Your task to perform on an android device: Go to Amazon Image 0: 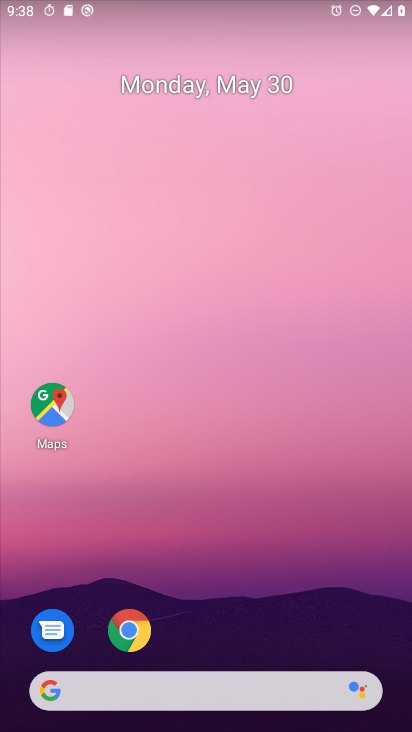
Step 0: drag from (358, 628) to (226, 29)
Your task to perform on an android device: Go to Amazon Image 1: 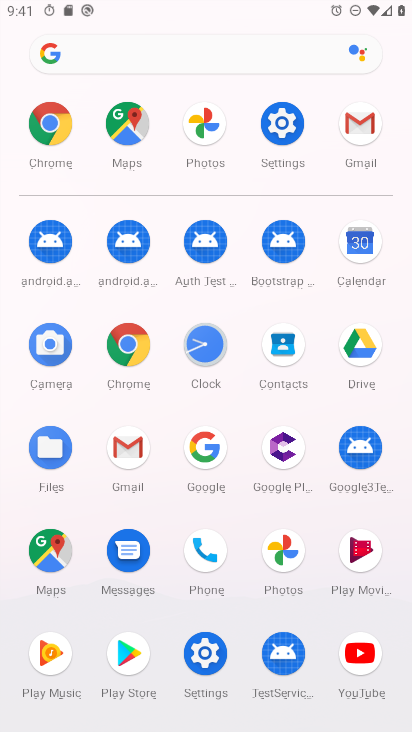
Step 1: click (213, 449)
Your task to perform on an android device: Go to Amazon Image 2: 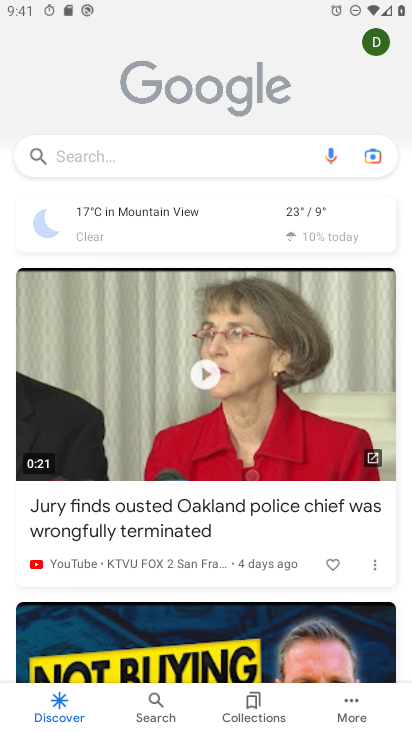
Step 2: click (152, 156)
Your task to perform on an android device: Go to Amazon Image 3: 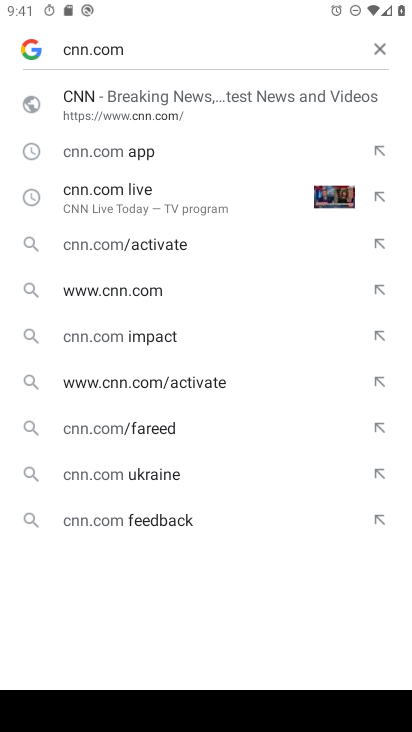
Step 3: press back button
Your task to perform on an android device: Go to Amazon Image 4: 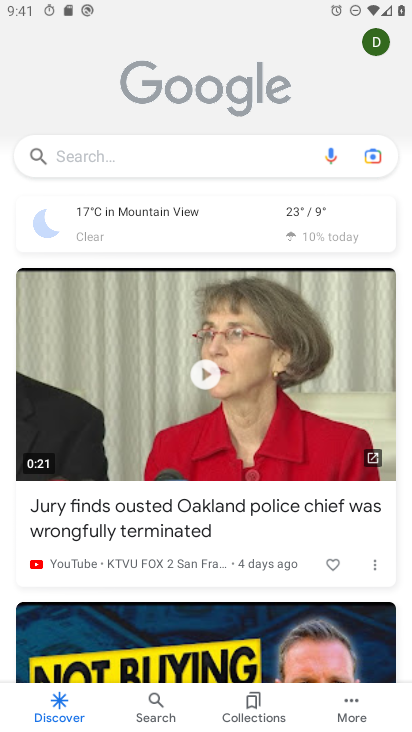
Step 4: click (142, 156)
Your task to perform on an android device: Go to Amazon Image 5: 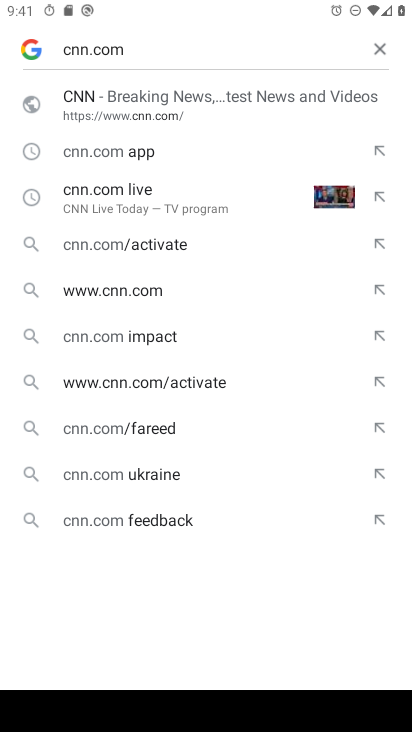
Step 5: click (385, 41)
Your task to perform on an android device: Go to Amazon Image 6: 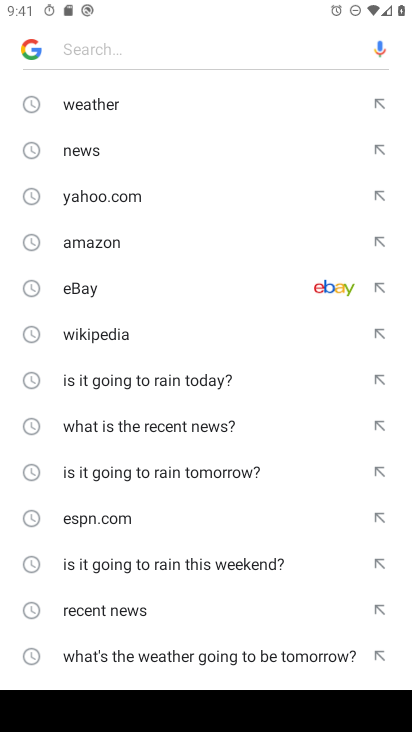
Step 6: drag from (123, 567) to (178, 145)
Your task to perform on an android device: Go to Amazon Image 7: 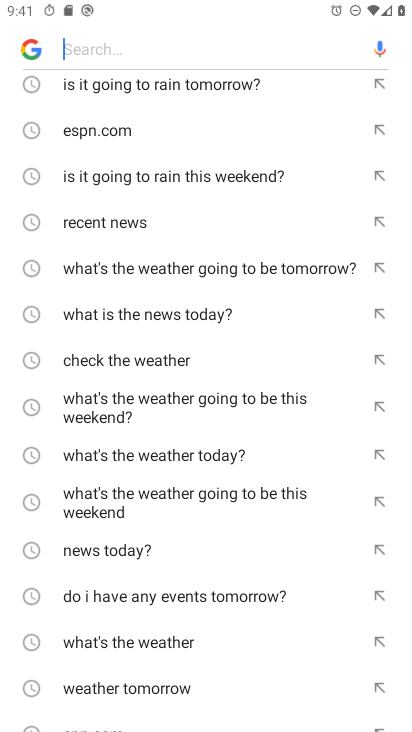
Step 7: drag from (161, 620) to (210, 141)
Your task to perform on an android device: Go to Amazon Image 8: 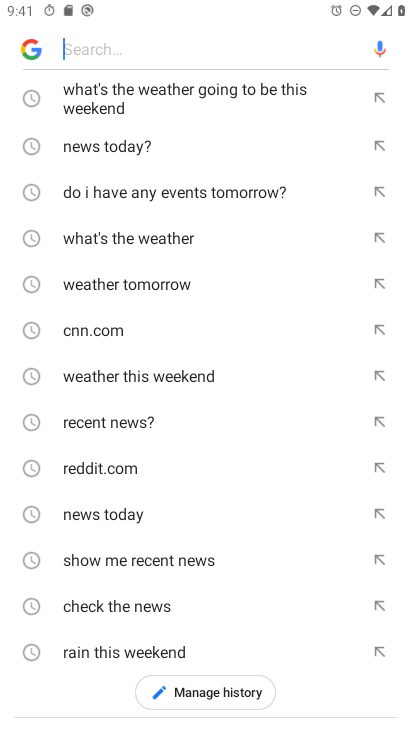
Step 8: drag from (180, 154) to (192, 675)
Your task to perform on an android device: Go to Amazon Image 9: 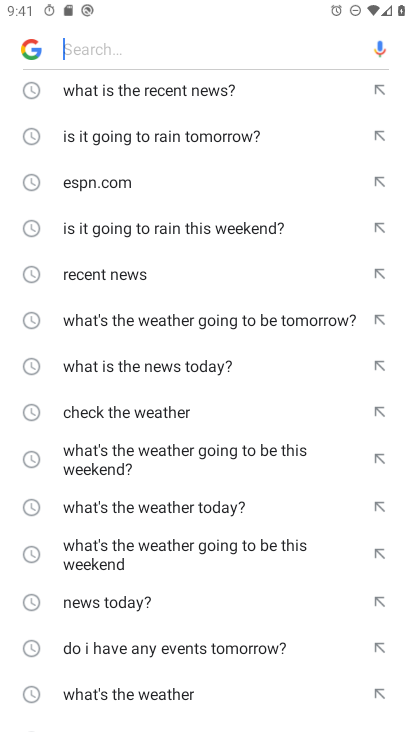
Step 9: drag from (201, 179) to (202, 618)
Your task to perform on an android device: Go to Amazon Image 10: 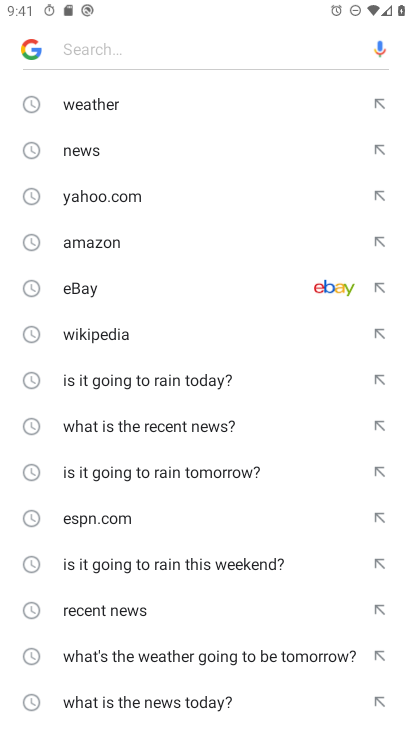
Step 10: click (135, 244)
Your task to perform on an android device: Go to Amazon Image 11: 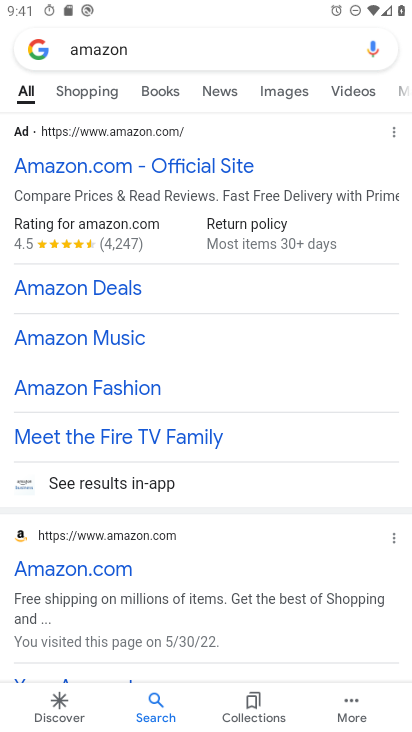
Step 11: task complete